Your task to perform on an android device: add a contact Image 0: 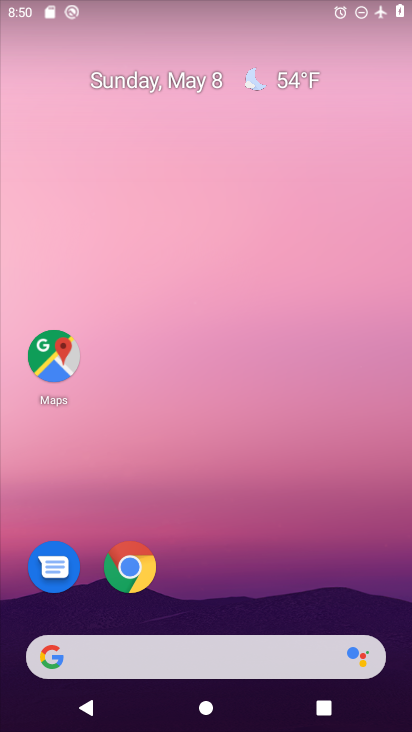
Step 0: drag from (245, 487) to (242, 159)
Your task to perform on an android device: add a contact Image 1: 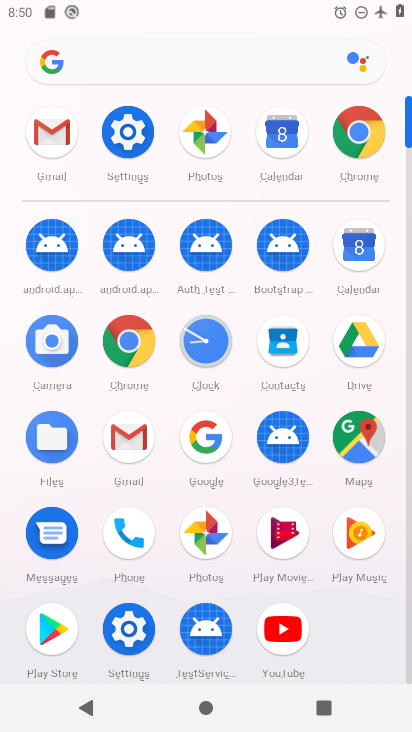
Step 1: click (281, 363)
Your task to perform on an android device: add a contact Image 2: 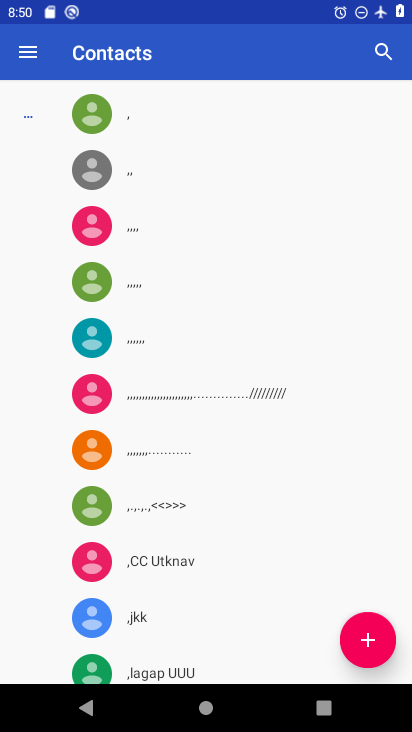
Step 2: click (371, 643)
Your task to perform on an android device: add a contact Image 3: 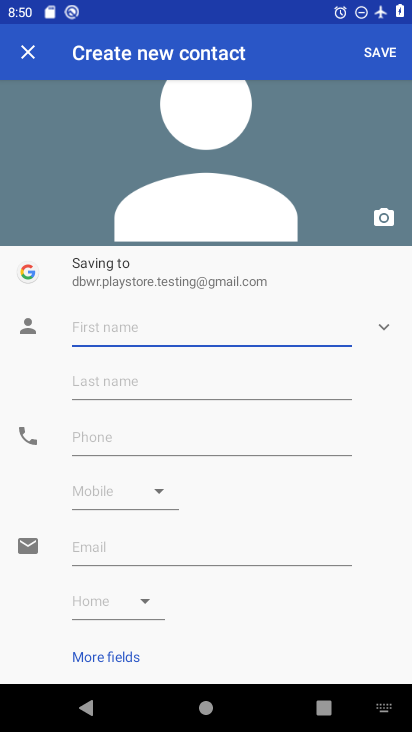
Step 3: type "meena"
Your task to perform on an android device: add a contact Image 4: 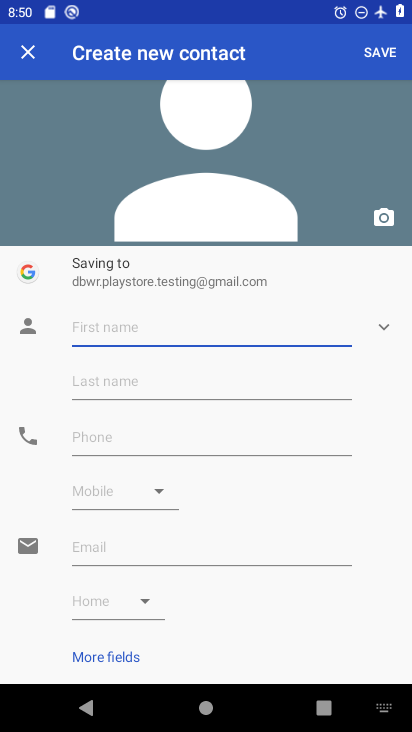
Step 4: click (151, 433)
Your task to perform on an android device: add a contact Image 5: 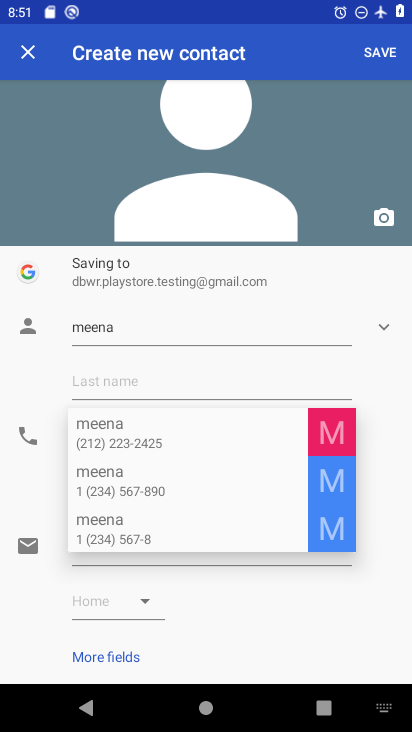
Step 5: type "56738736378"
Your task to perform on an android device: add a contact Image 6: 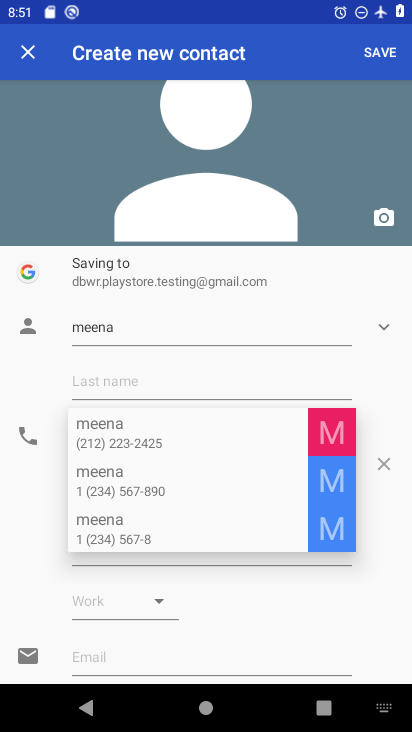
Step 6: click (393, 56)
Your task to perform on an android device: add a contact Image 7: 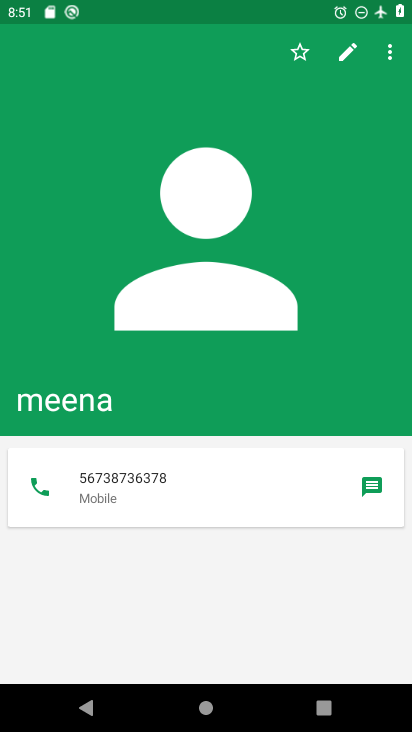
Step 7: task complete